Your task to perform on an android device: Open Yahoo.com Image 0: 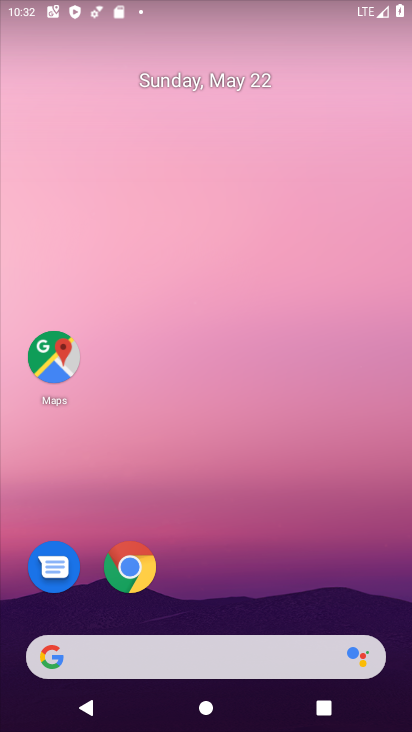
Step 0: click (129, 566)
Your task to perform on an android device: Open Yahoo.com Image 1: 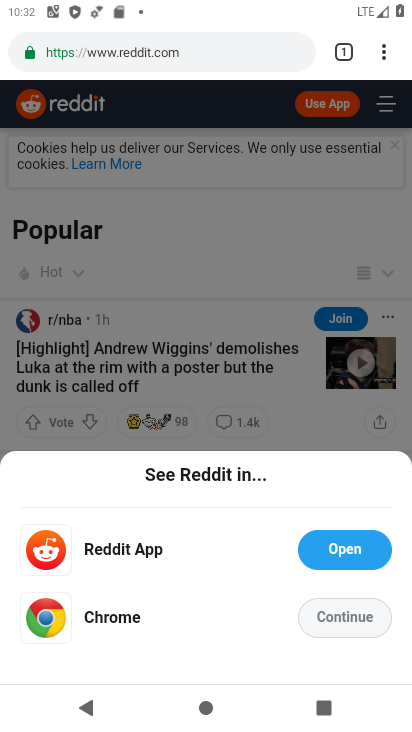
Step 1: click (122, 45)
Your task to perform on an android device: Open Yahoo.com Image 2: 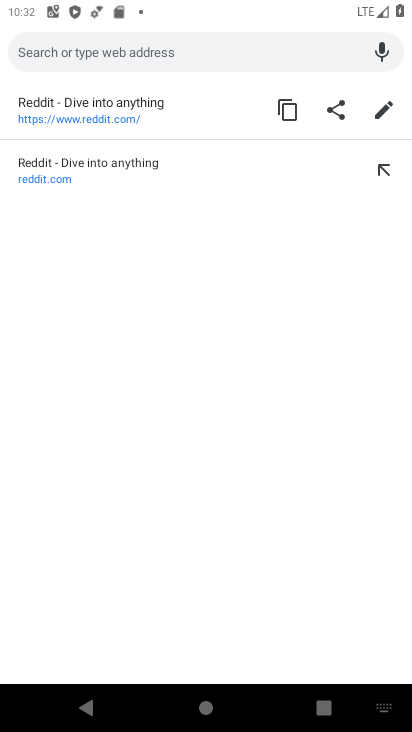
Step 2: type "yahoo.com"
Your task to perform on an android device: Open Yahoo.com Image 3: 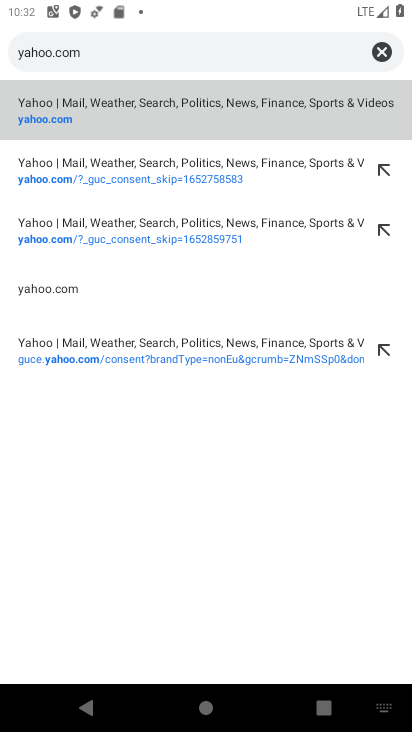
Step 3: click (73, 104)
Your task to perform on an android device: Open Yahoo.com Image 4: 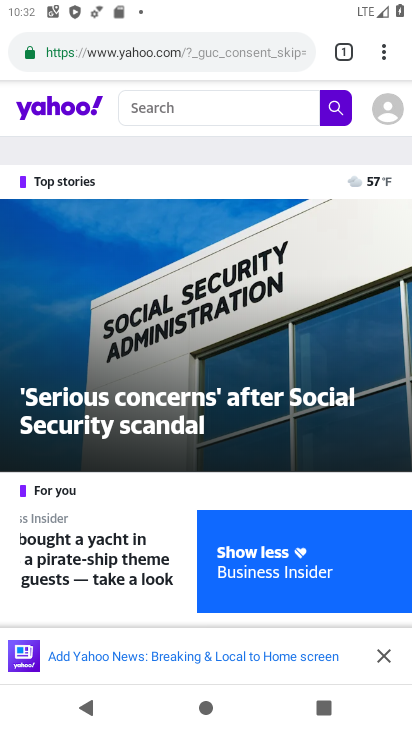
Step 4: task complete